Your task to perform on an android device: turn on notifications settings in the gmail app Image 0: 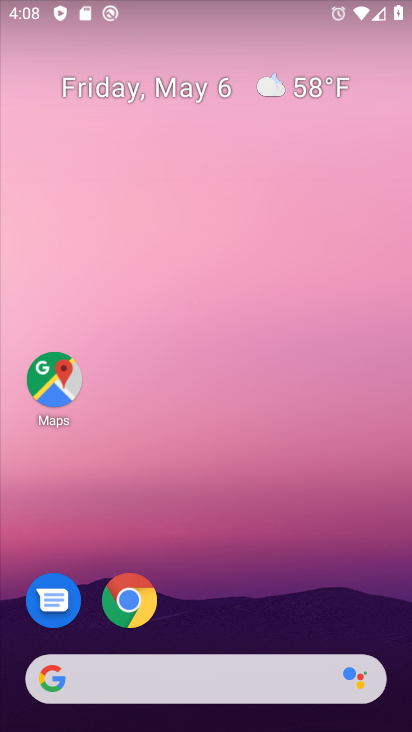
Step 0: drag from (217, 636) to (273, 244)
Your task to perform on an android device: turn on notifications settings in the gmail app Image 1: 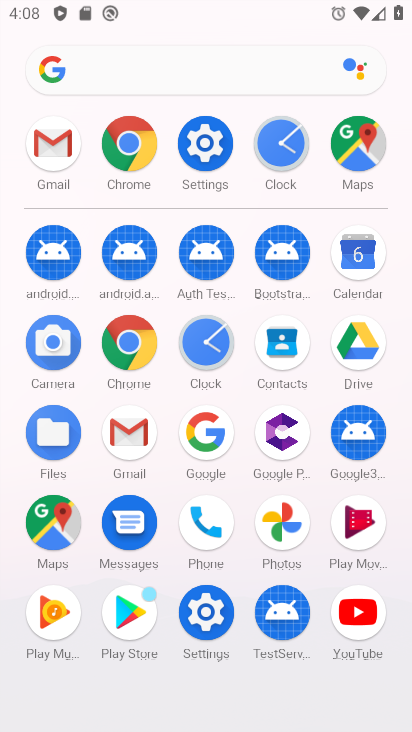
Step 1: click (138, 444)
Your task to perform on an android device: turn on notifications settings in the gmail app Image 2: 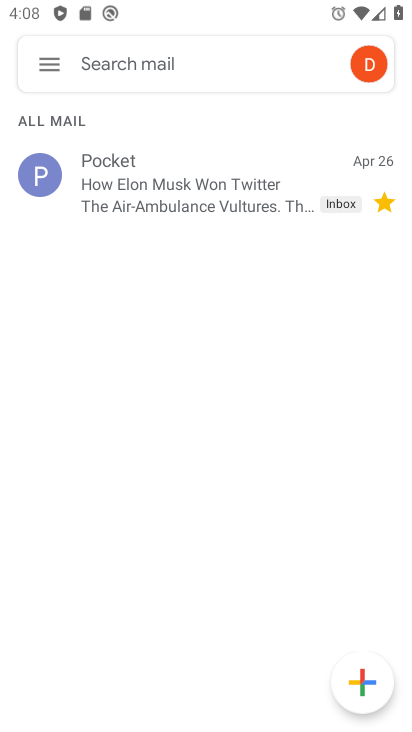
Step 2: click (53, 63)
Your task to perform on an android device: turn on notifications settings in the gmail app Image 3: 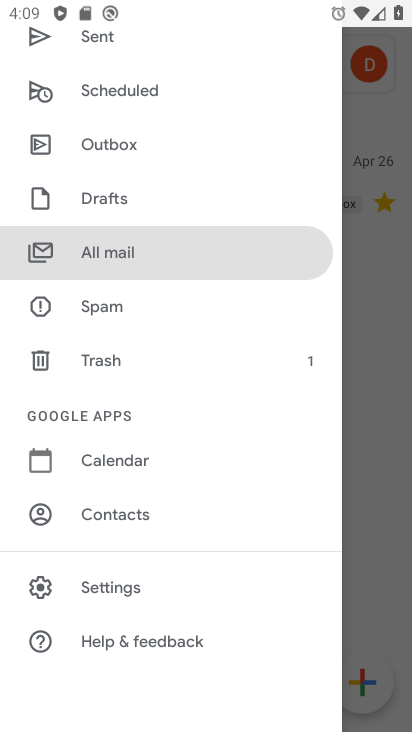
Step 3: click (107, 595)
Your task to perform on an android device: turn on notifications settings in the gmail app Image 4: 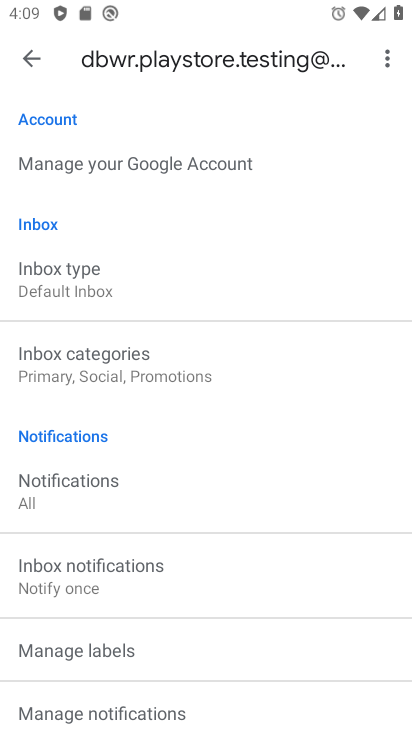
Step 4: drag from (108, 503) to (199, 213)
Your task to perform on an android device: turn on notifications settings in the gmail app Image 5: 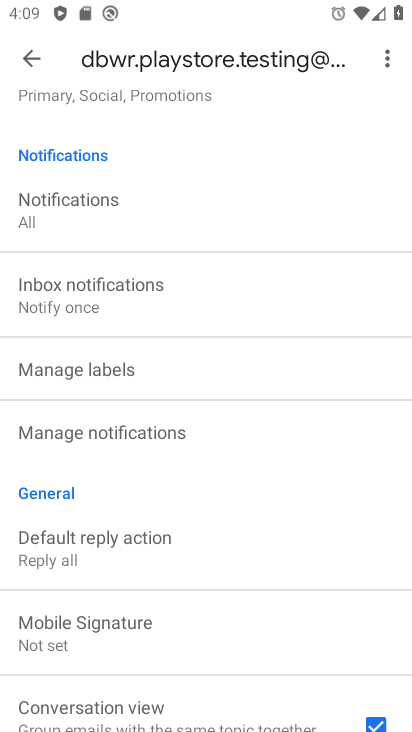
Step 5: click (48, 61)
Your task to perform on an android device: turn on notifications settings in the gmail app Image 6: 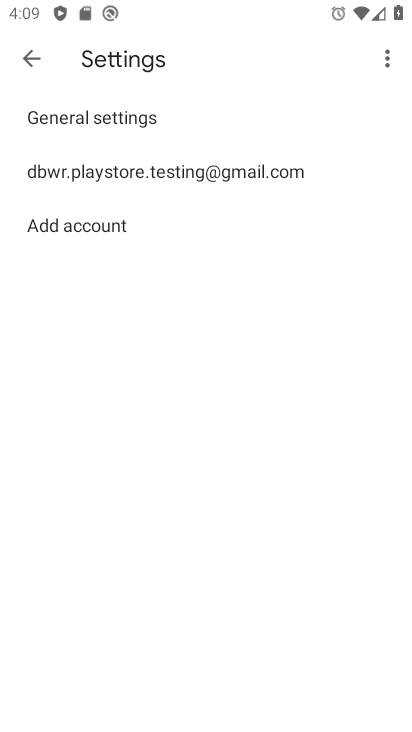
Step 6: click (76, 120)
Your task to perform on an android device: turn on notifications settings in the gmail app Image 7: 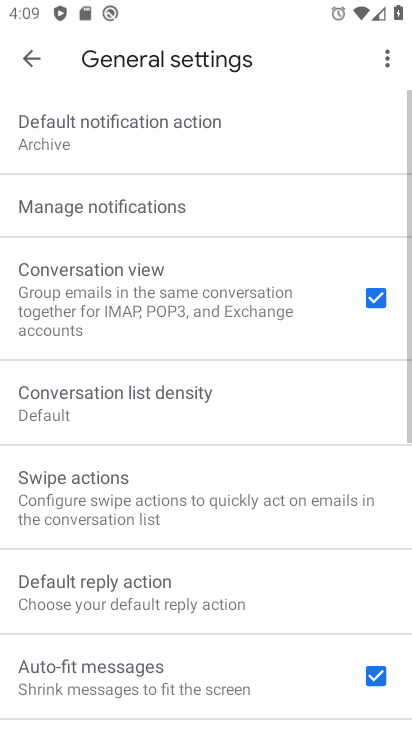
Step 7: click (113, 214)
Your task to perform on an android device: turn on notifications settings in the gmail app Image 8: 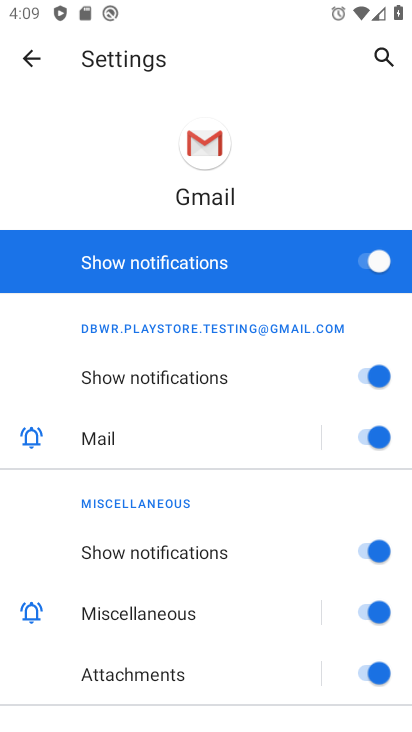
Step 8: task complete